Your task to perform on an android device: change alarm snooze length Image 0: 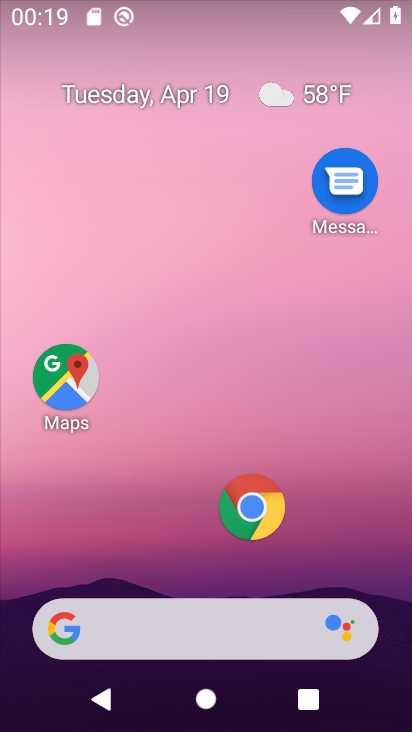
Step 0: drag from (179, 549) to (274, 2)
Your task to perform on an android device: change alarm snooze length Image 1: 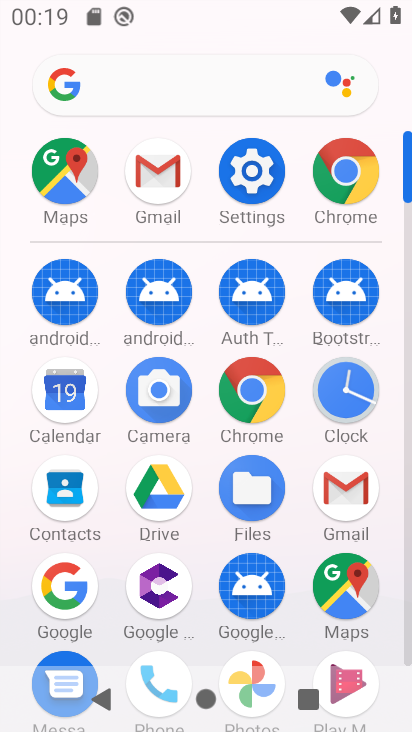
Step 1: click (361, 399)
Your task to perform on an android device: change alarm snooze length Image 2: 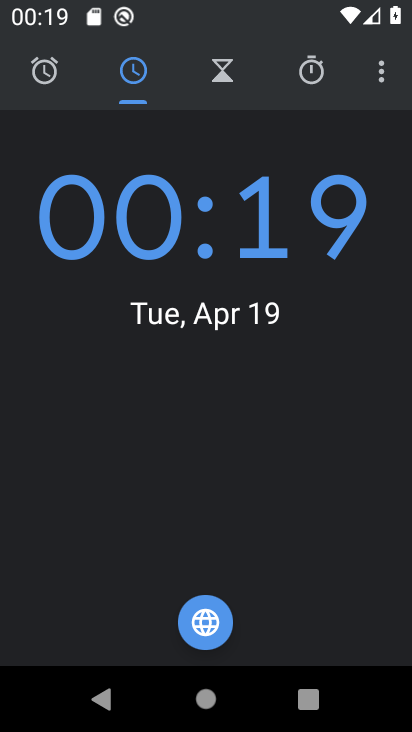
Step 2: click (376, 85)
Your task to perform on an android device: change alarm snooze length Image 3: 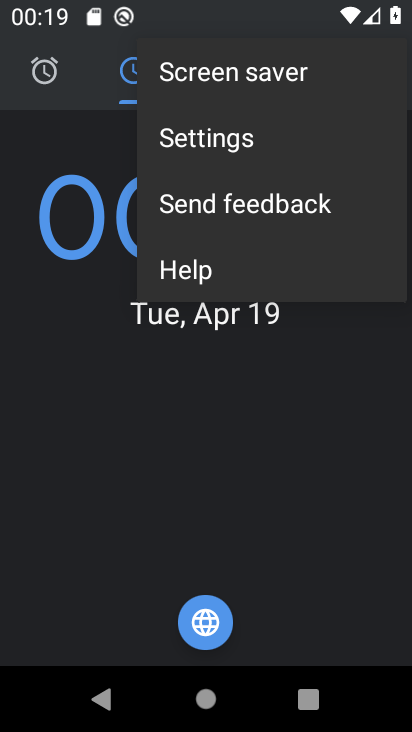
Step 3: click (215, 154)
Your task to perform on an android device: change alarm snooze length Image 4: 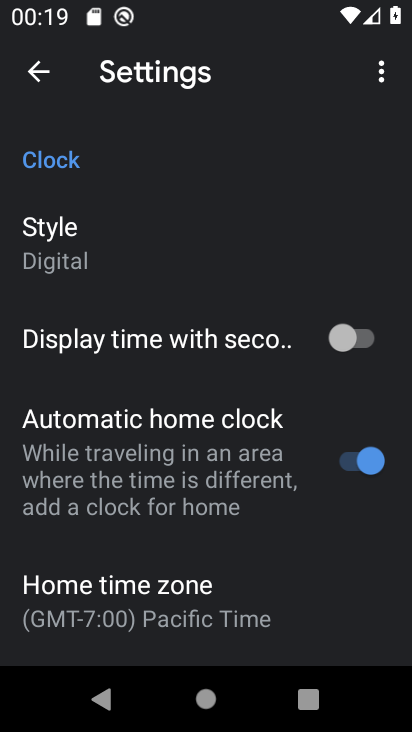
Step 4: drag from (182, 485) to (230, 152)
Your task to perform on an android device: change alarm snooze length Image 5: 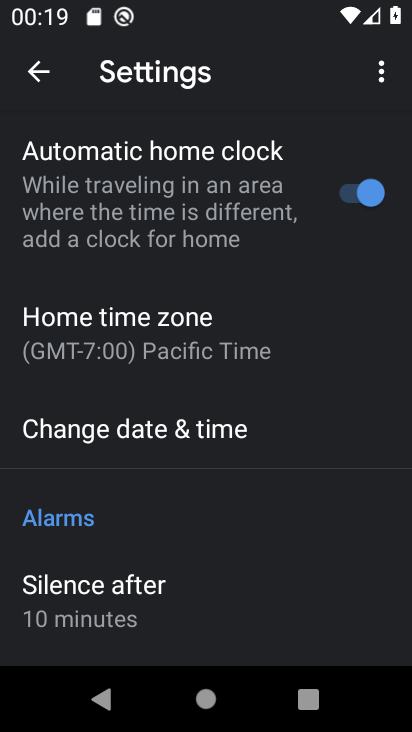
Step 5: drag from (159, 467) to (226, 149)
Your task to perform on an android device: change alarm snooze length Image 6: 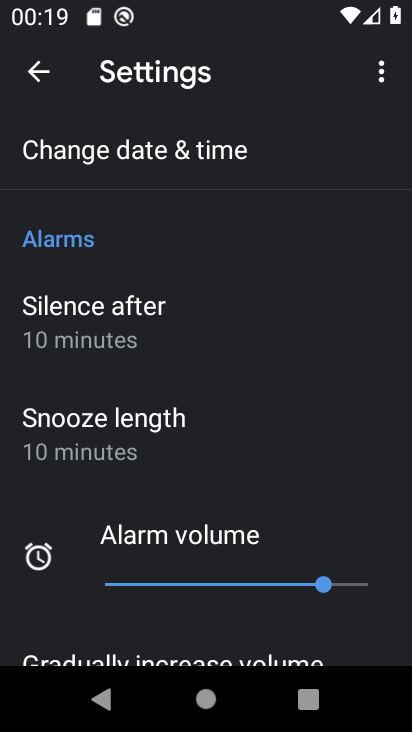
Step 6: click (143, 435)
Your task to perform on an android device: change alarm snooze length Image 7: 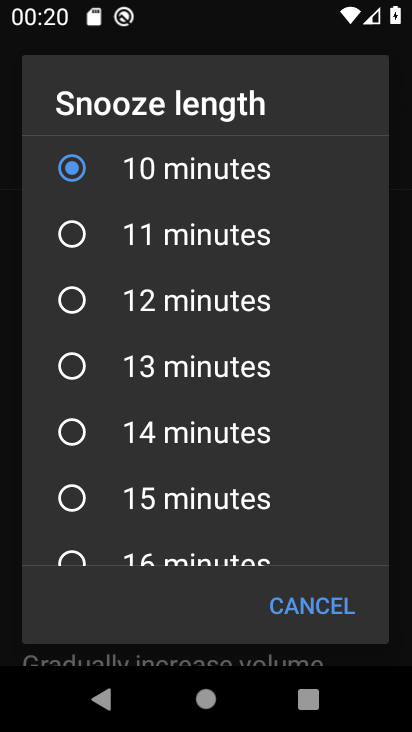
Step 7: click (69, 420)
Your task to perform on an android device: change alarm snooze length Image 8: 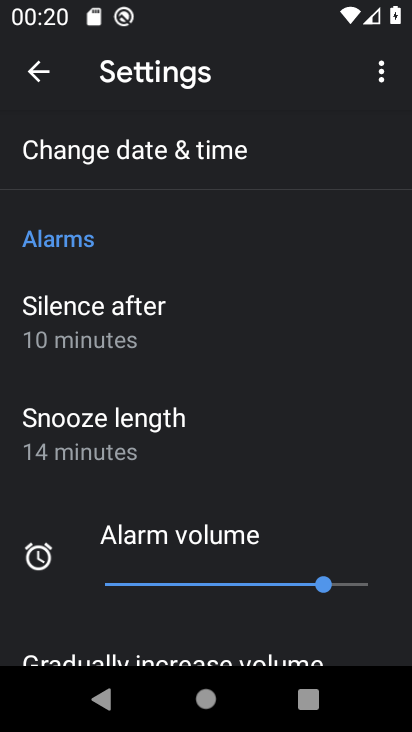
Step 8: task complete